Your task to perform on an android device: Open the map Image 0: 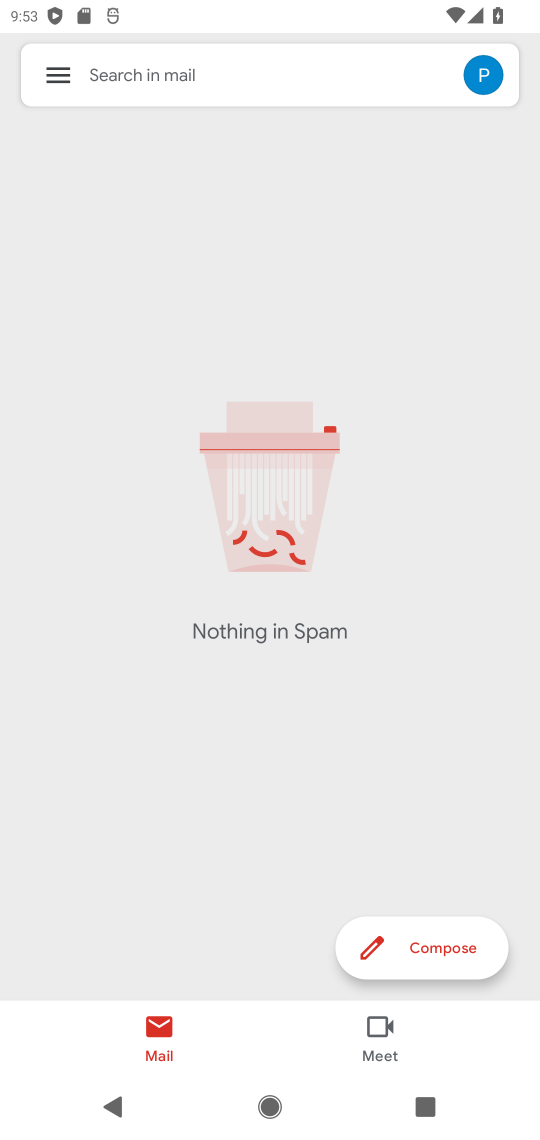
Step 0: press home button
Your task to perform on an android device: Open the map Image 1: 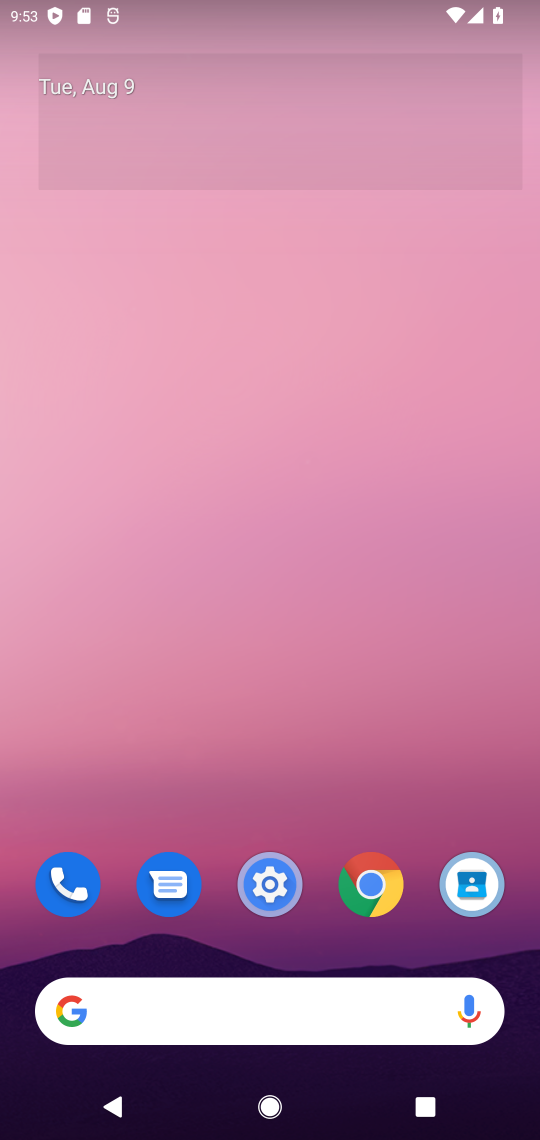
Step 1: drag from (273, 1011) to (306, 260)
Your task to perform on an android device: Open the map Image 2: 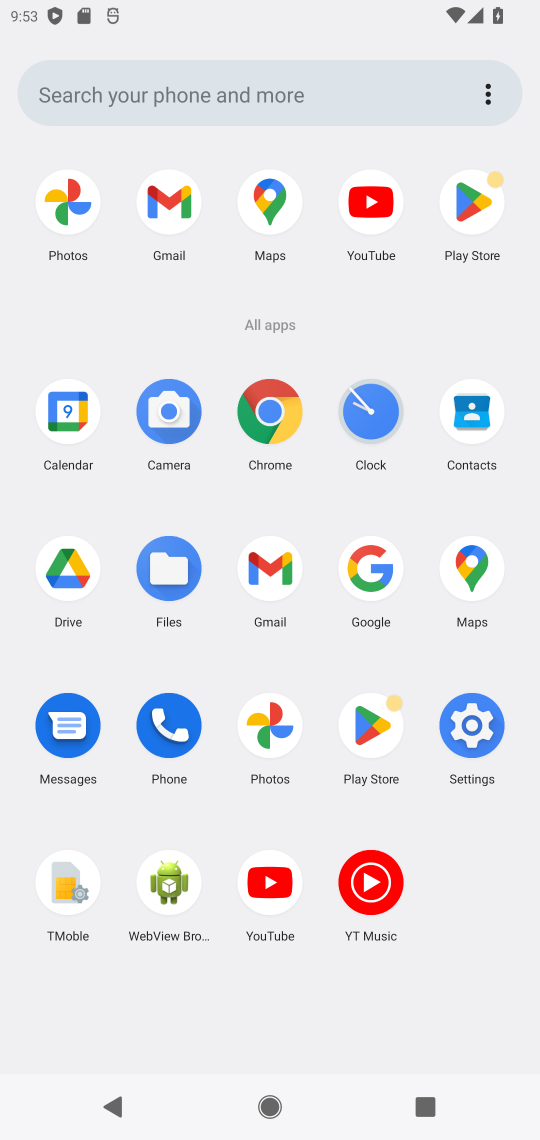
Step 2: click (475, 557)
Your task to perform on an android device: Open the map Image 3: 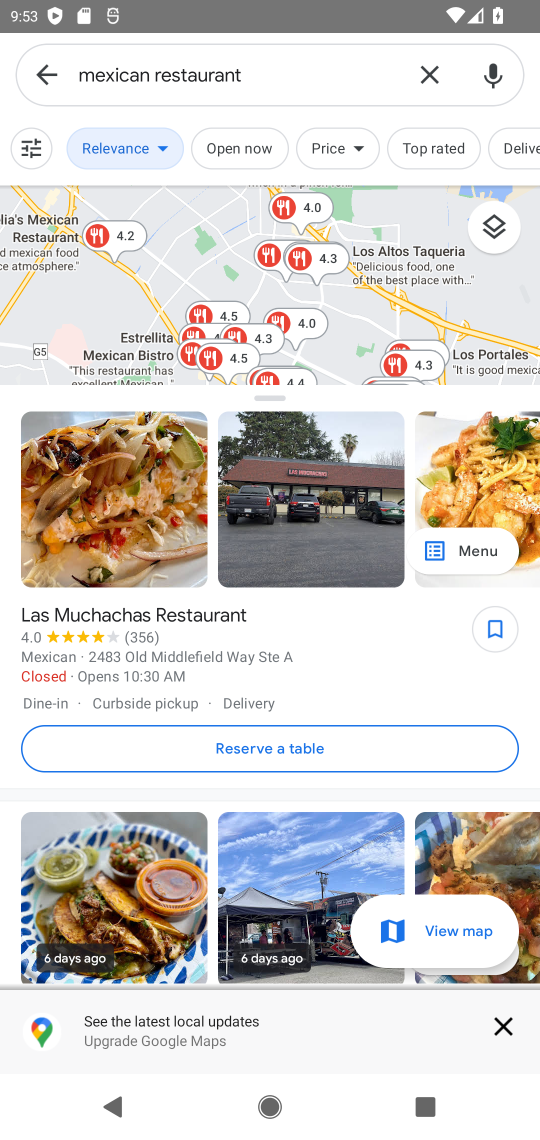
Step 3: task complete